Your task to perform on an android device: Open battery settings Image 0: 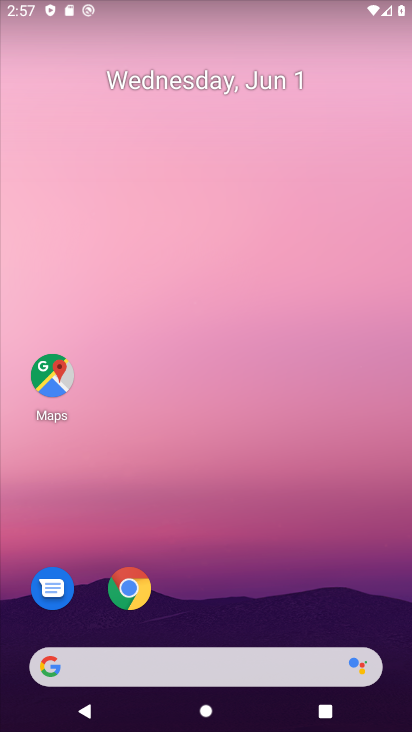
Step 0: drag from (320, 585) to (290, 168)
Your task to perform on an android device: Open battery settings Image 1: 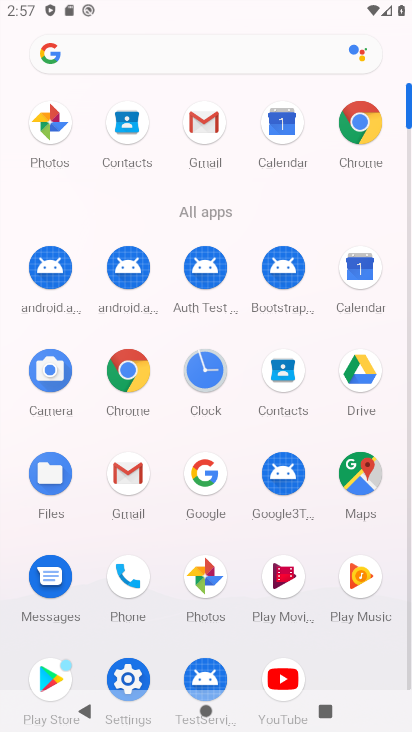
Step 1: drag from (295, 220) to (278, 7)
Your task to perform on an android device: Open battery settings Image 2: 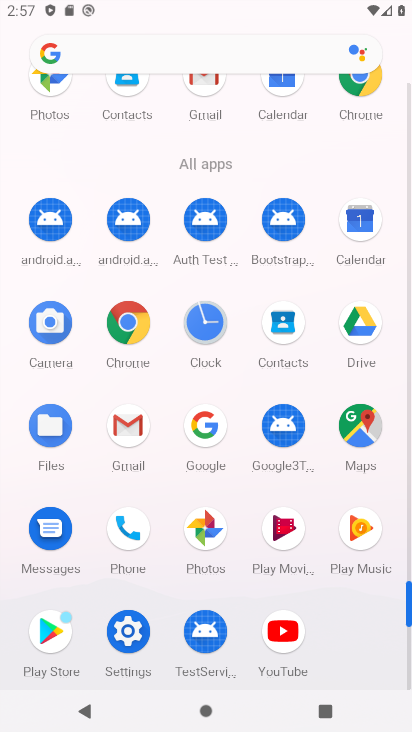
Step 2: click (122, 633)
Your task to perform on an android device: Open battery settings Image 3: 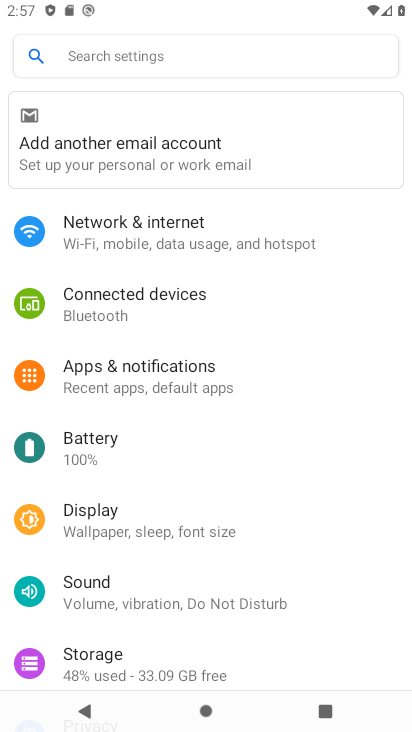
Step 3: click (118, 451)
Your task to perform on an android device: Open battery settings Image 4: 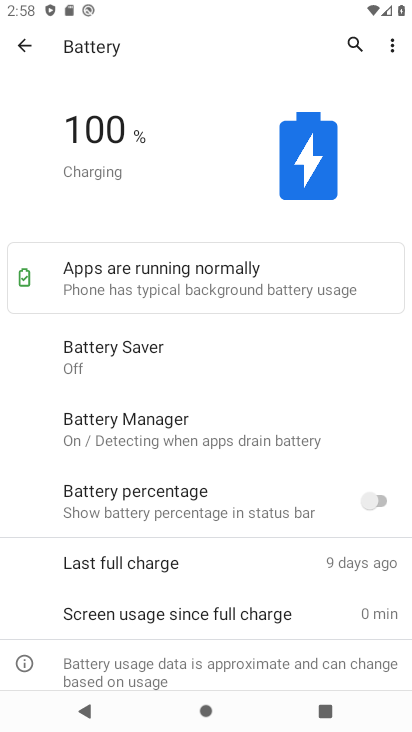
Step 4: task complete